Your task to perform on an android device: change your default location settings in chrome Image 0: 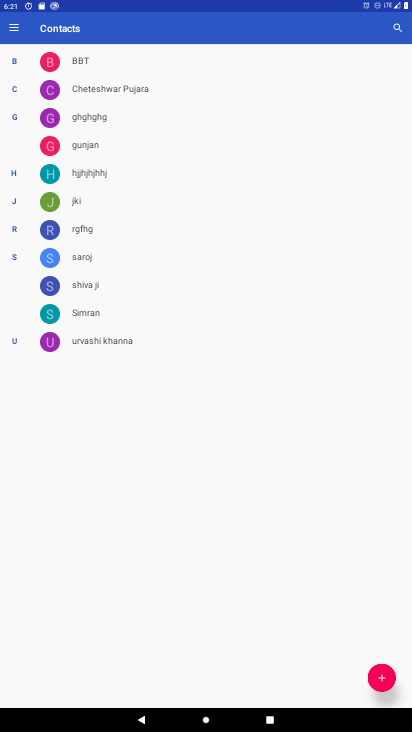
Step 0: press home button
Your task to perform on an android device: change your default location settings in chrome Image 1: 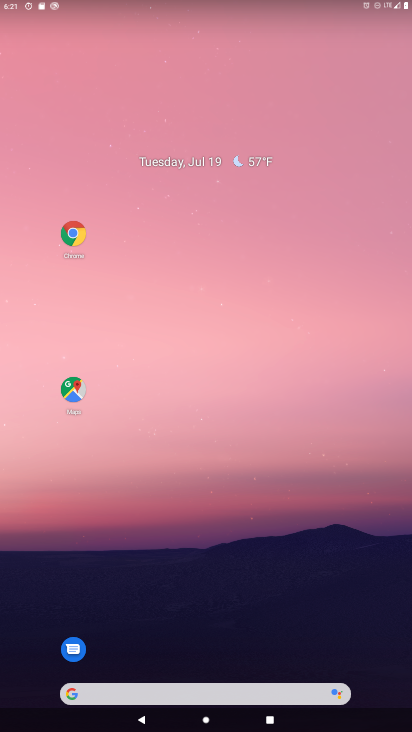
Step 1: click (68, 247)
Your task to perform on an android device: change your default location settings in chrome Image 2: 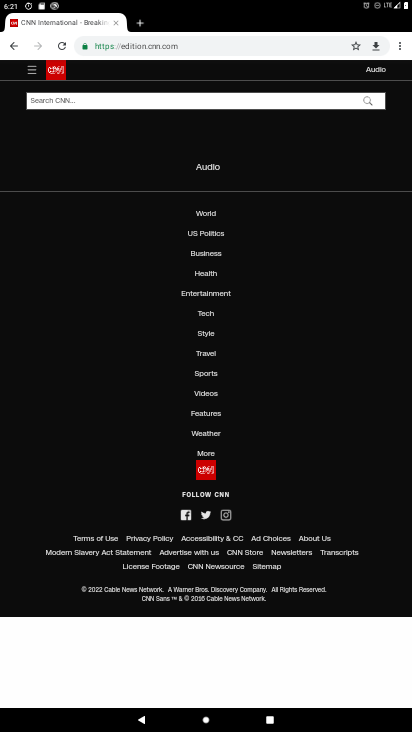
Step 2: click (399, 42)
Your task to perform on an android device: change your default location settings in chrome Image 3: 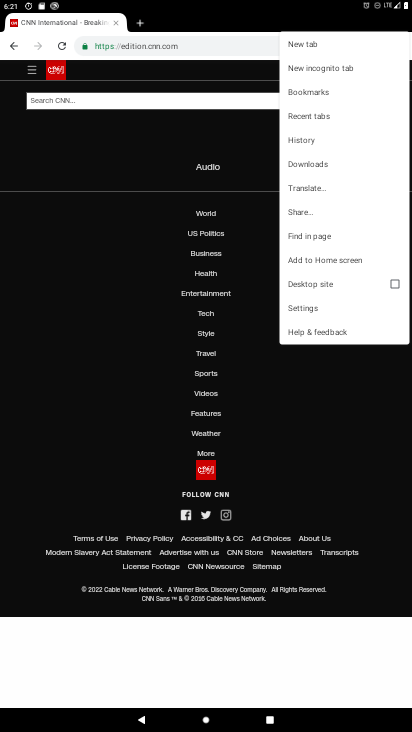
Step 3: click (308, 308)
Your task to perform on an android device: change your default location settings in chrome Image 4: 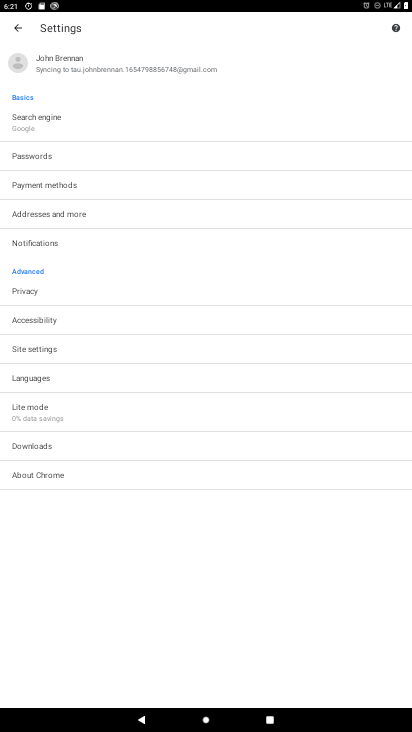
Step 4: click (29, 355)
Your task to perform on an android device: change your default location settings in chrome Image 5: 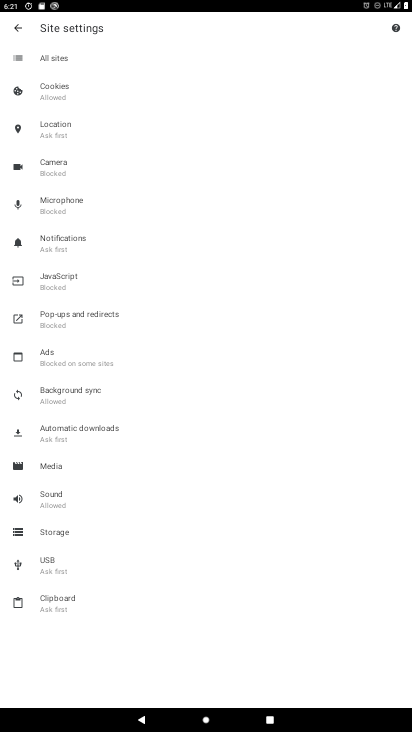
Step 5: click (70, 128)
Your task to perform on an android device: change your default location settings in chrome Image 6: 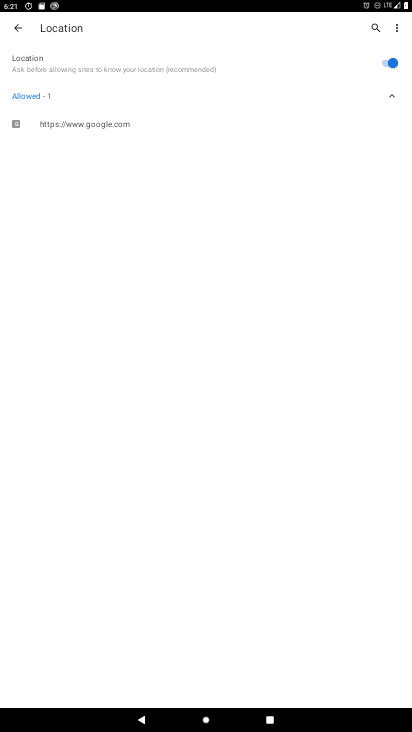
Step 6: click (382, 60)
Your task to perform on an android device: change your default location settings in chrome Image 7: 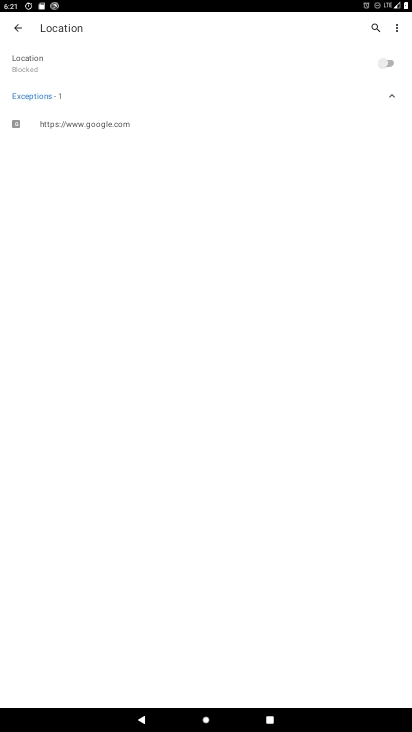
Step 7: task complete